Your task to perform on an android device: toggle pop-ups in chrome Image 0: 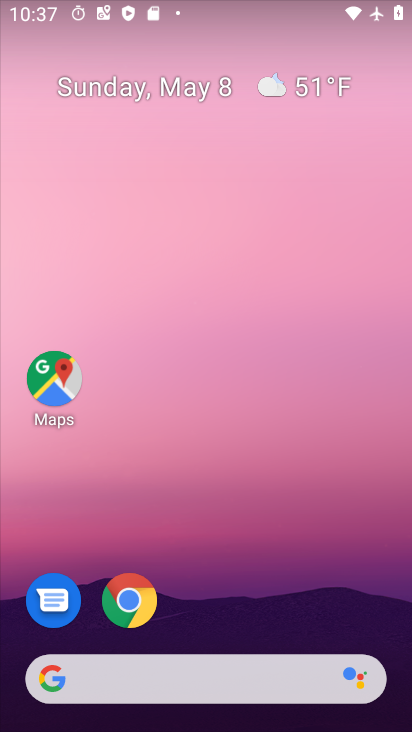
Step 0: drag from (275, 582) to (229, 39)
Your task to perform on an android device: toggle pop-ups in chrome Image 1: 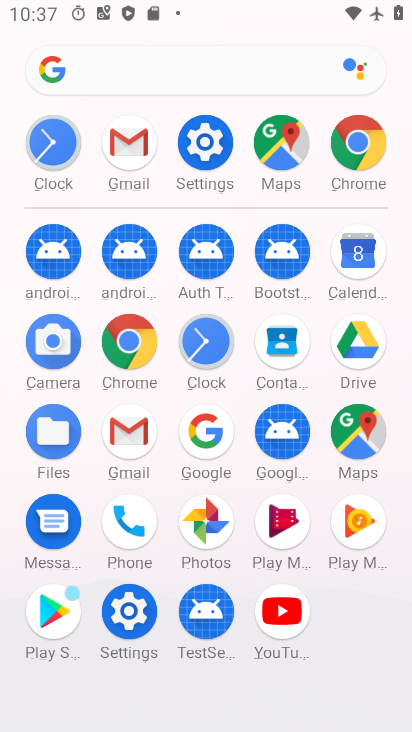
Step 1: drag from (2, 580) to (13, 289)
Your task to perform on an android device: toggle pop-ups in chrome Image 2: 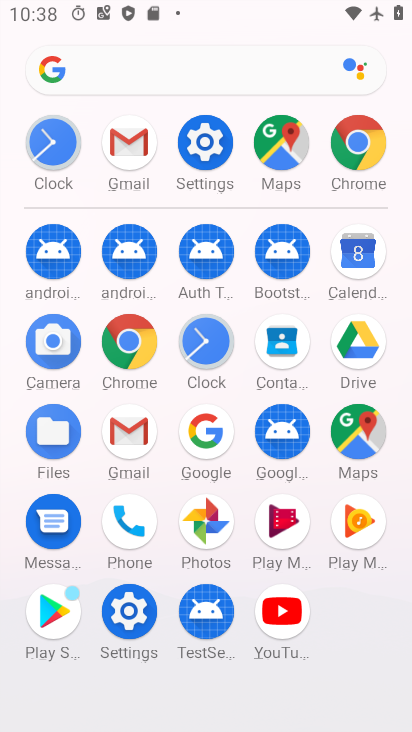
Step 2: click (363, 137)
Your task to perform on an android device: toggle pop-ups in chrome Image 3: 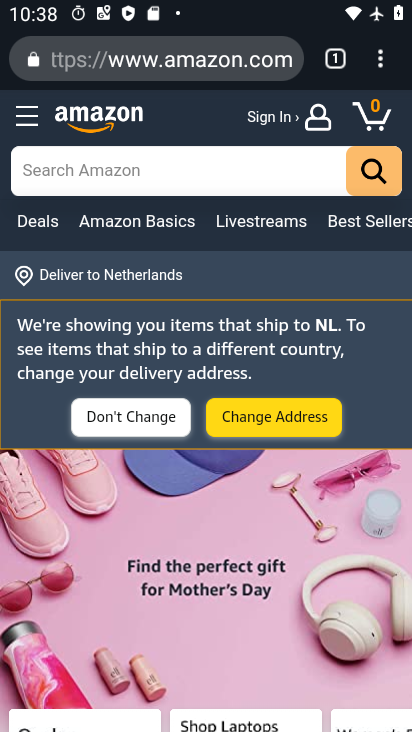
Step 3: drag from (380, 53) to (190, 618)
Your task to perform on an android device: toggle pop-ups in chrome Image 4: 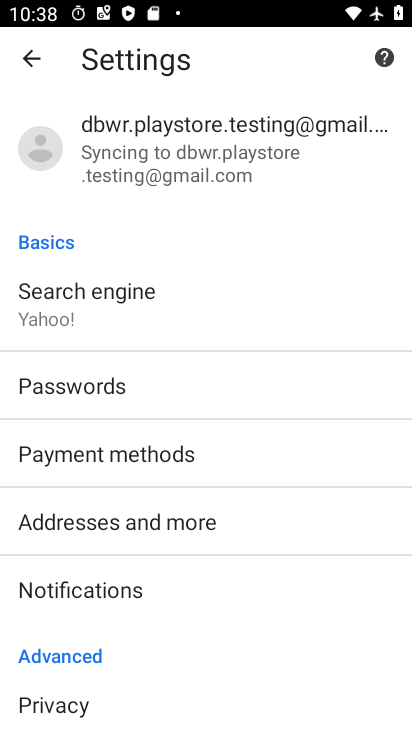
Step 4: drag from (230, 509) to (247, 205)
Your task to perform on an android device: toggle pop-ups in chrome Image 5: 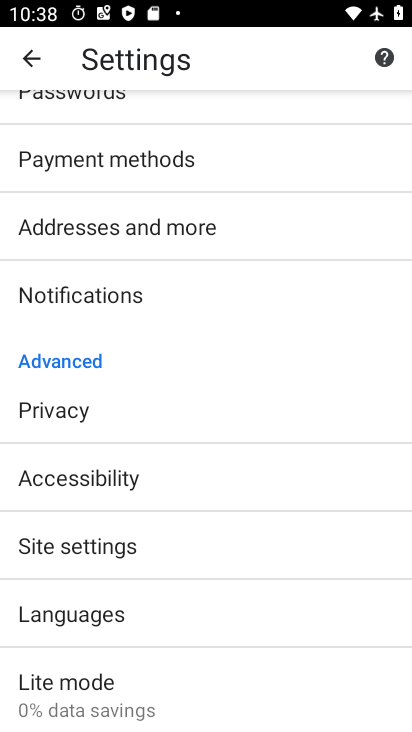
Step 5: drag from (281, 604) to (274, 186)
Your task to perform on an android device: toggle pop-ups in chrome Image 6: 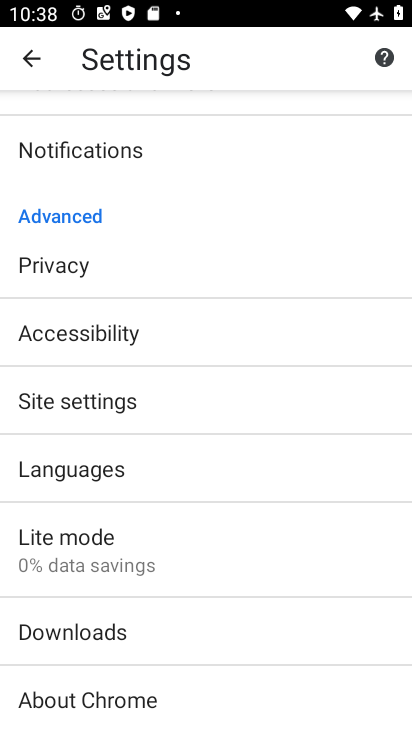
Step 6: click (131, 395)
Your task to perform on an android device: toggle pop-ups in chrome Image 7: 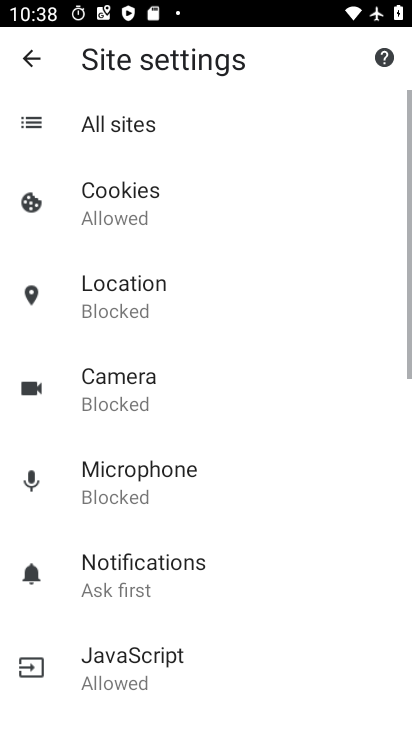
Step 7: drag from (268, 614) to (296, 149)
Your task to perform on an android device: toggle pop-ups in chrome Image 8: 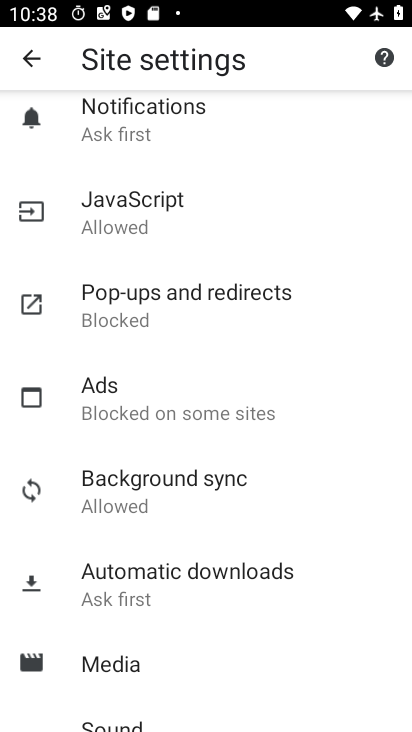
Step 8: click (211, 292)
Your task to perform on an android device: toggle pop-ups in chrome Image 9: 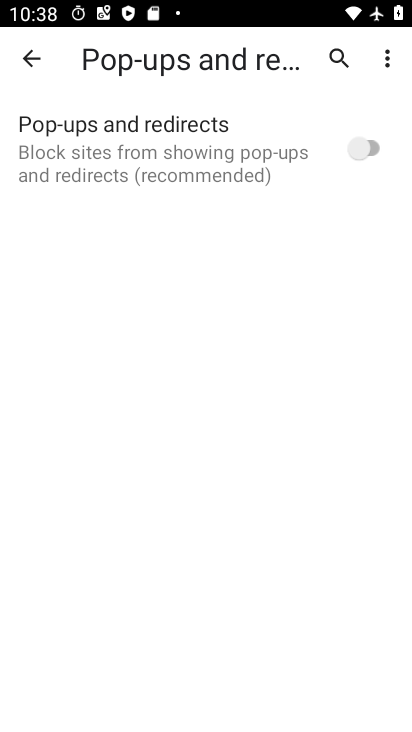
Step 9: click (348, 149)
Your task to perform on an android device: toggle pop-ups in chrome Image 10: 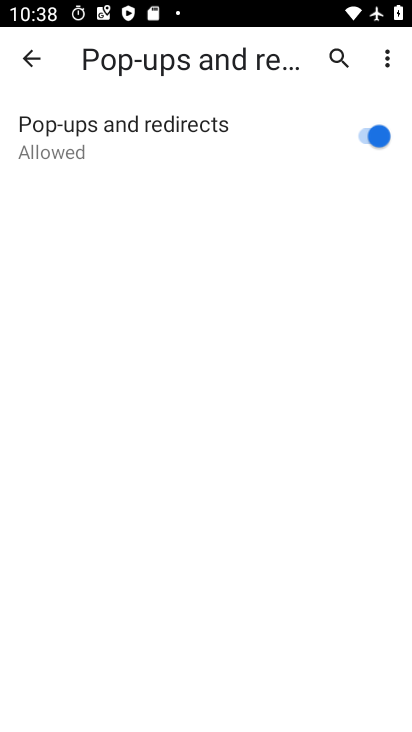
Step 10: task complete